Your task to perform on an android device: Open my contact list Image 0: 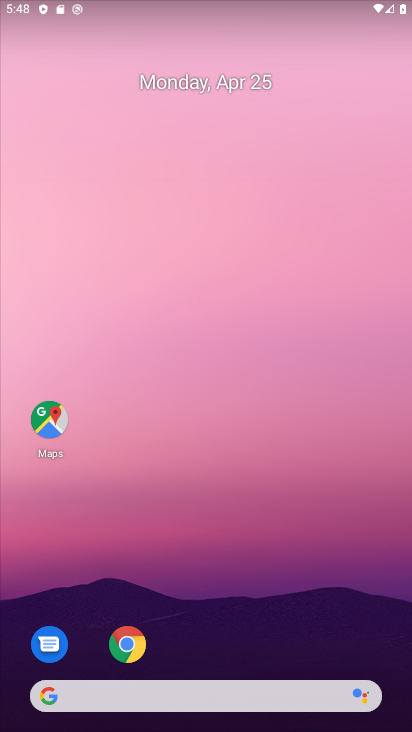
Step 0: drag from (263, 619) to (300, 124)
Your task to perform on an android device: Open my contact list Image 1: 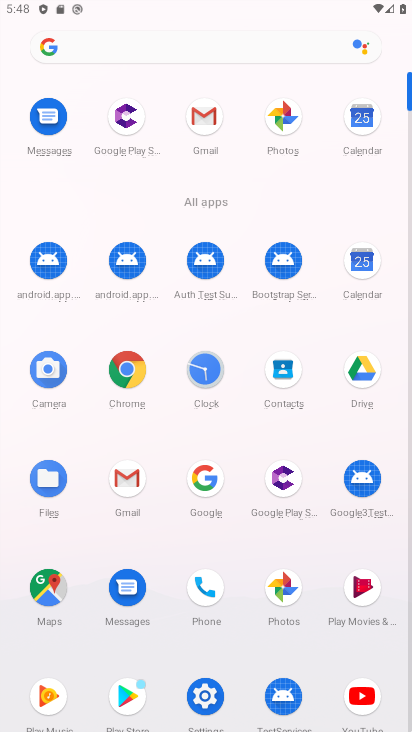
Step 1: click (281, 374)
Your task to perform on an android device: Open my contact list Image 2: 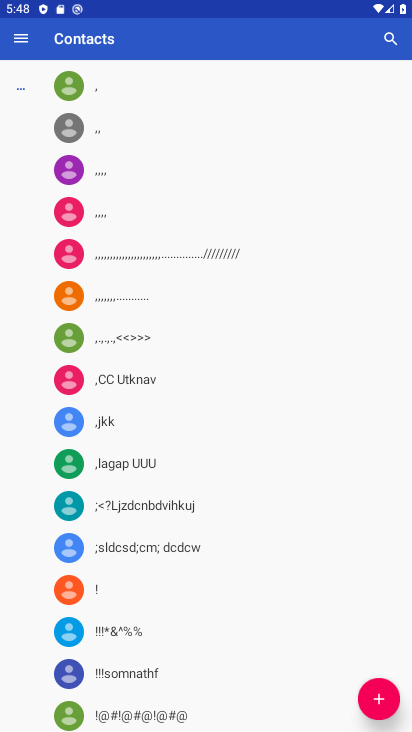
Step 2: task complete